Your task to perform on an android device: Open Yahoo.com Image 0: 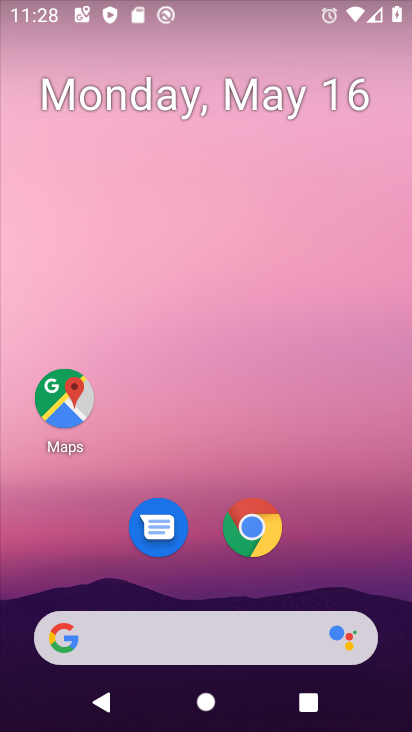
Step 0: click (249, 529)
Your task to perform on an android device: Open Yahoo.com Image 1: 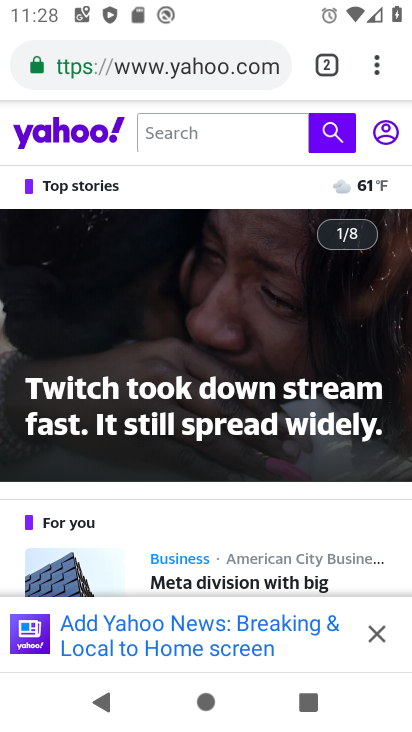
Step 1: task complete